Your task to perform on an android device: Go to notification settings Image 0: 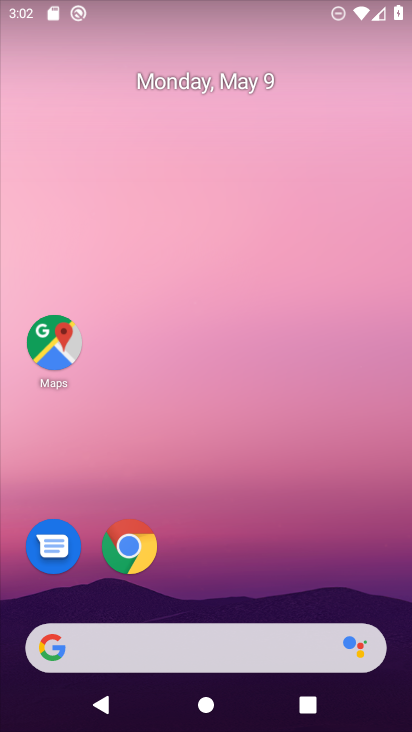
Step 0: drag from (190, 601) to (238, 24)
Your task to perform on an android device: Go to notification settings Image 1: 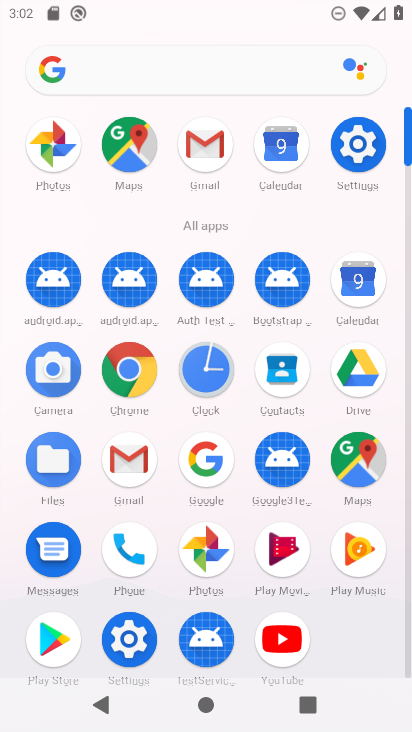
Step 1: click (372, 149)
Your task to perform on an android device: Go to notification settings Image 2: 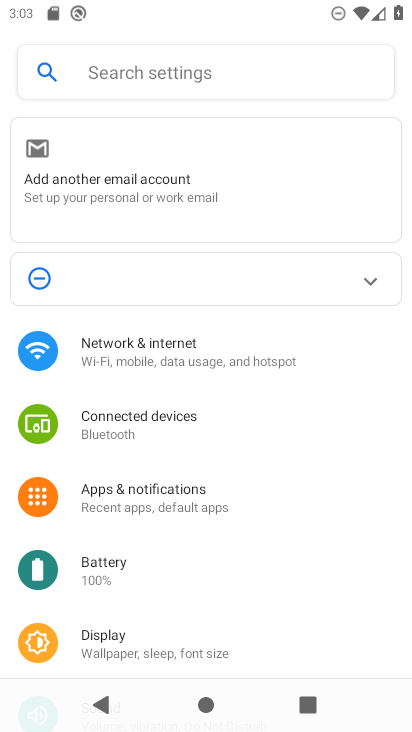
Step 2: click (183, 511)
Your task to perform on an android device: Go to notification settings Image 3: 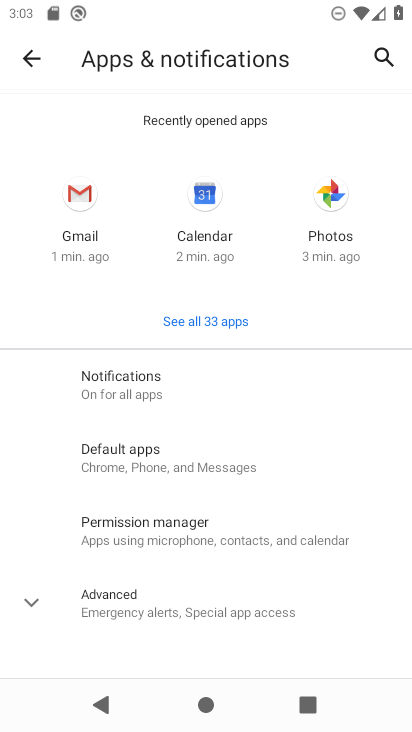
Step 3: click (178, 379)
Your task to perform on an android device: Go to notification settings Image 4: 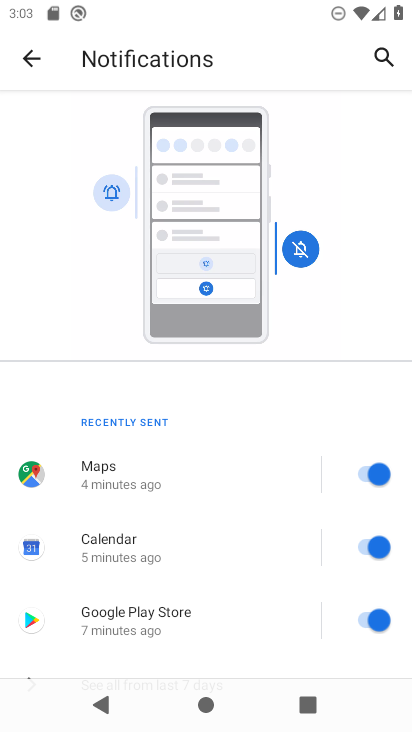
Step 4: task complete